Your task to perform on an android device: change the clock display to analog Image 0: 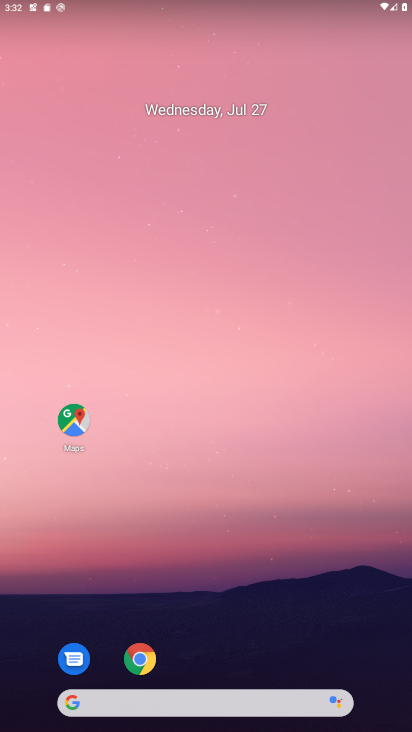
Step 0: drag from (203, 556) to (196, 24)
Your task to perform on an android device: change the clock display to analog Image 1: 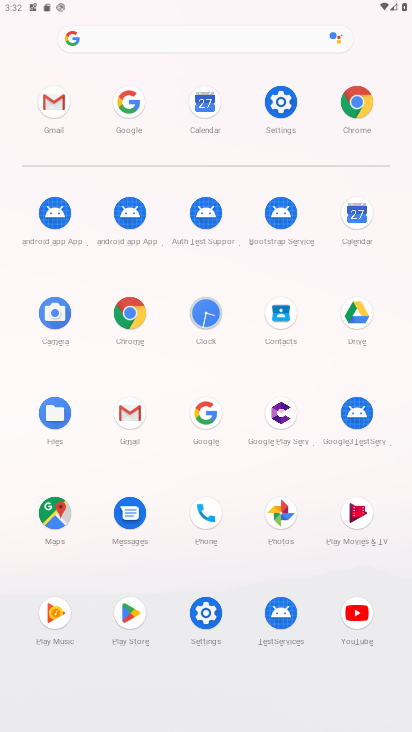
Step 1: click (207, 310)
Your task to perform on an android device: change the clock display to analog Image 2: 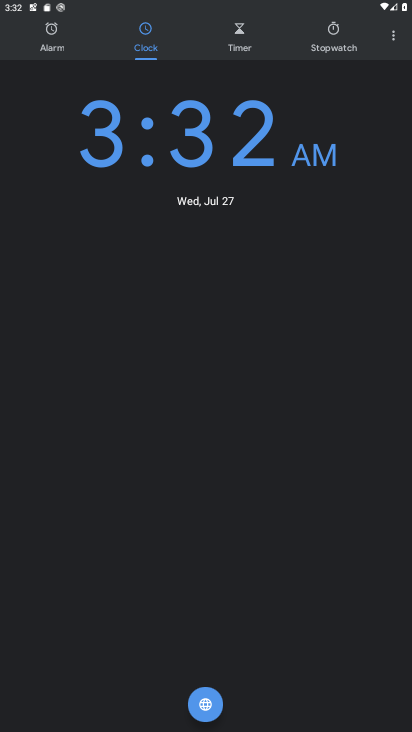
Step 2: click (393, 32)
Your task to perform on an android device: change the clock display to analog Image 3: 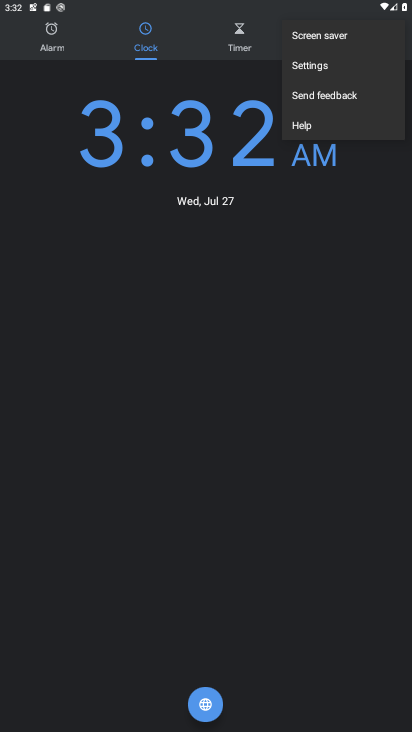
Step 3: click (315, 69)
Your task to perform on an android device: change the clock display to analog Image 4: 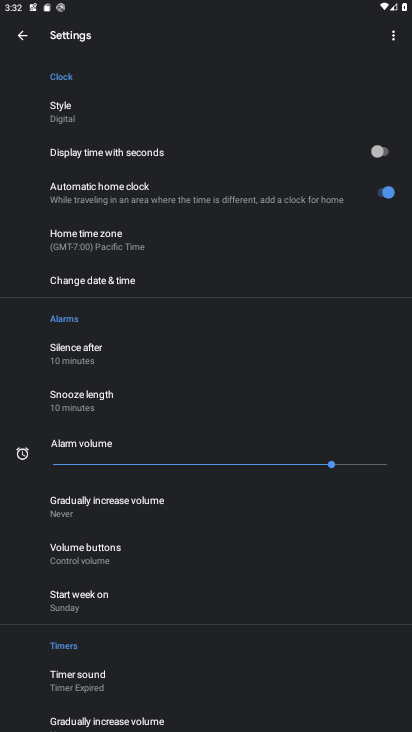
Step 4: click (59, 113)
Your task to perform on an android device: change the clock display to analog Image 5: 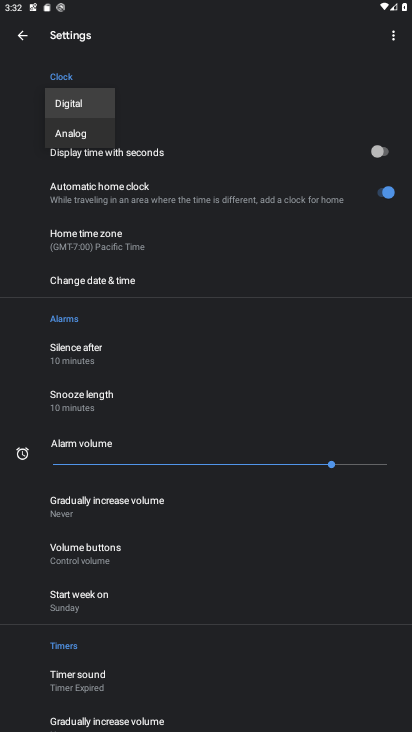
Step 5: click (79, 138)
Your task to perform on an android device: change the clock display to analog Image 6: 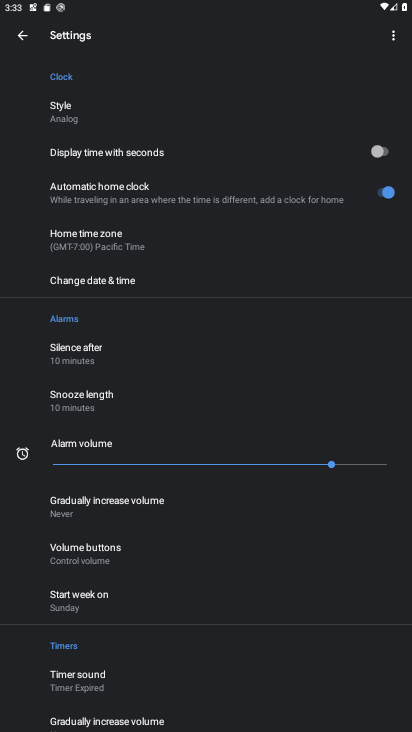
Step 6: task complete